Your task to perform on an android device: uninstall "Google News" Image 0: 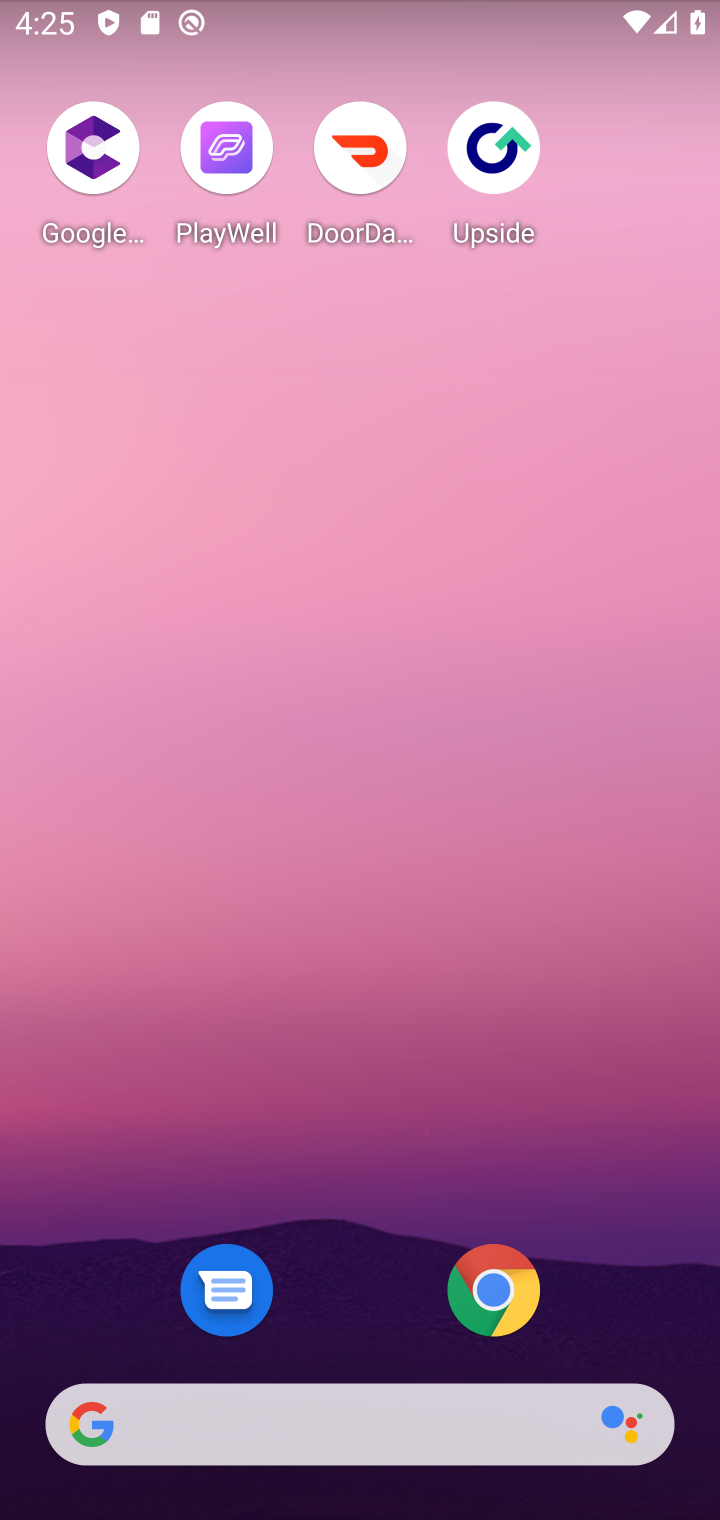
Step 0: drag from (353, 1226) to (302, 324)
Your task to perform on an android device: uninstall "Google News" Image 1: 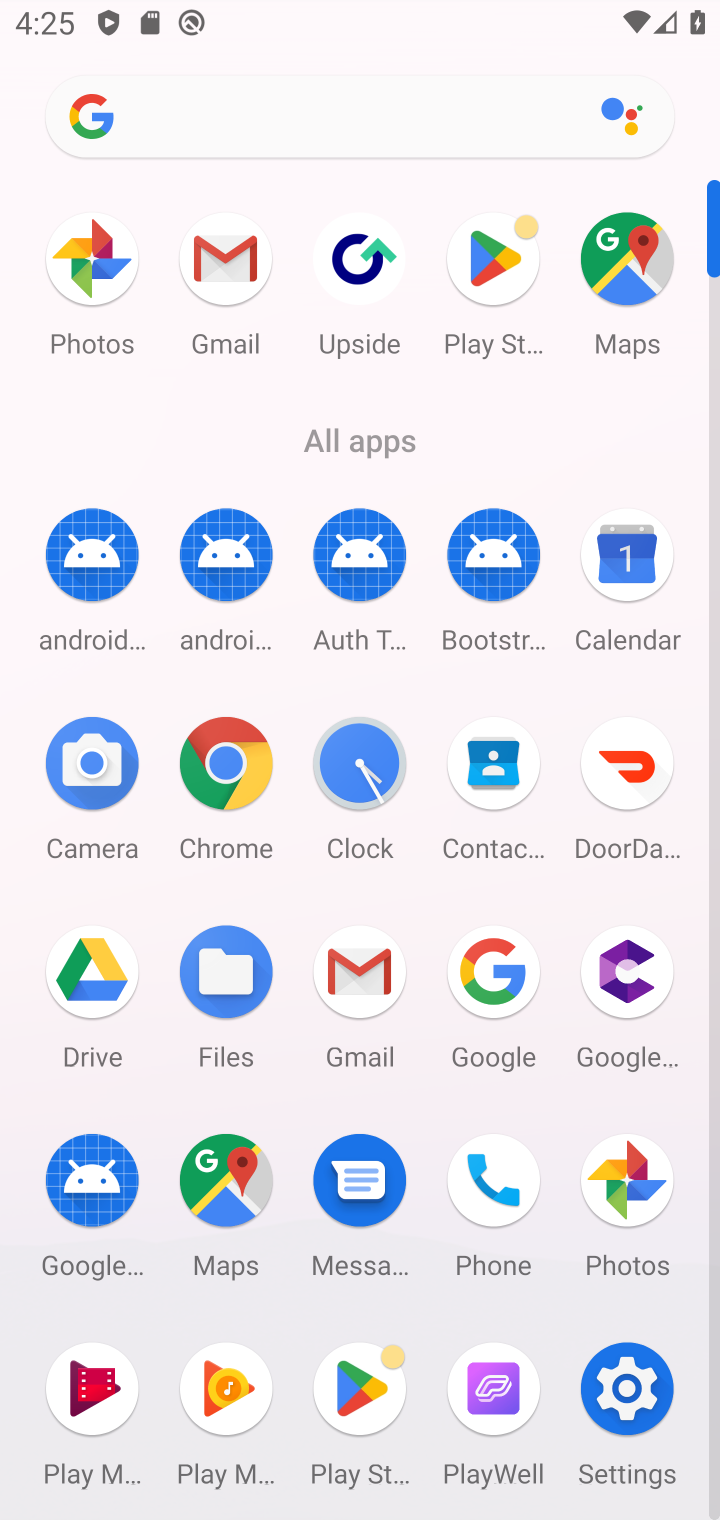
Step 1: click (255, 776)
Your task to perform on an android device: uninstall "Google News" Image 2: 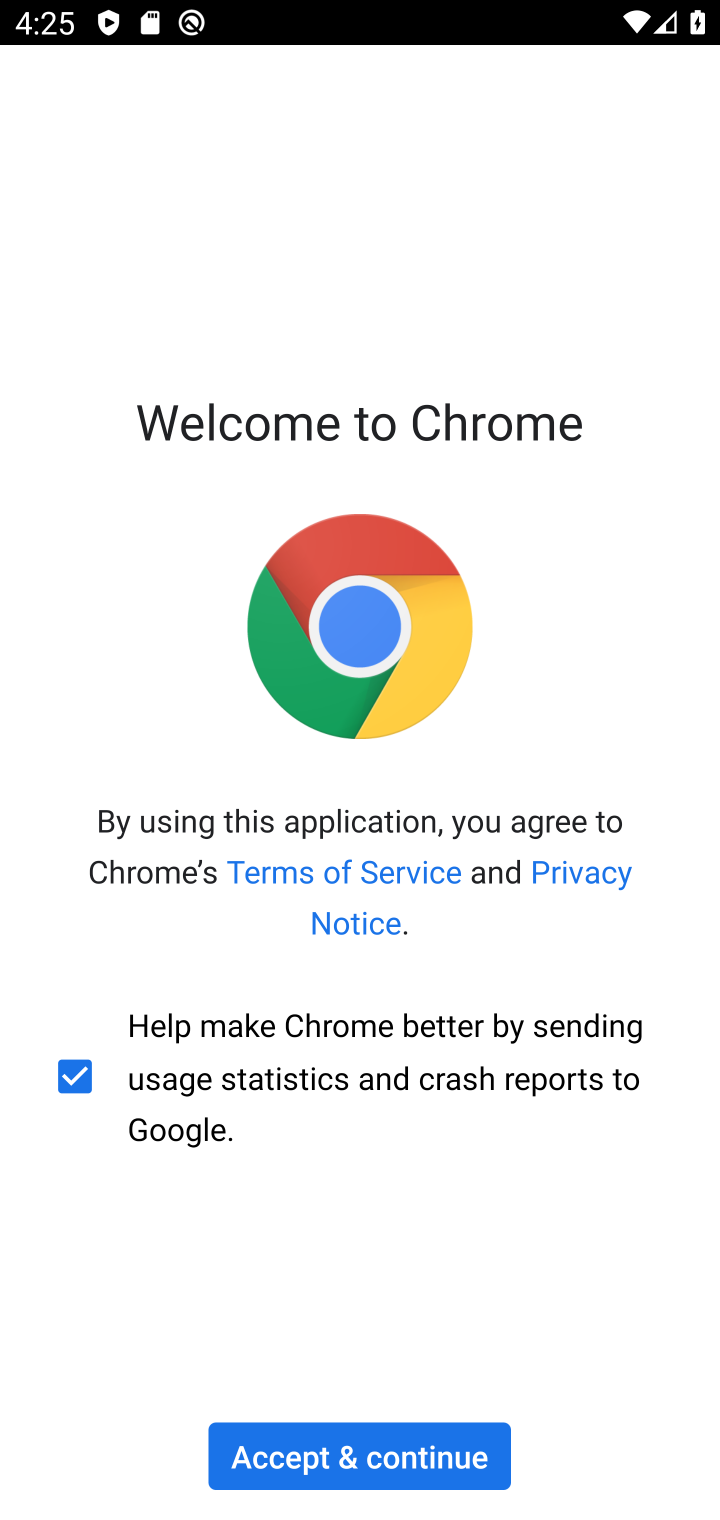
Step 2: press home button
Your task to perform on an android device: uninstall "Google News" Image 3: 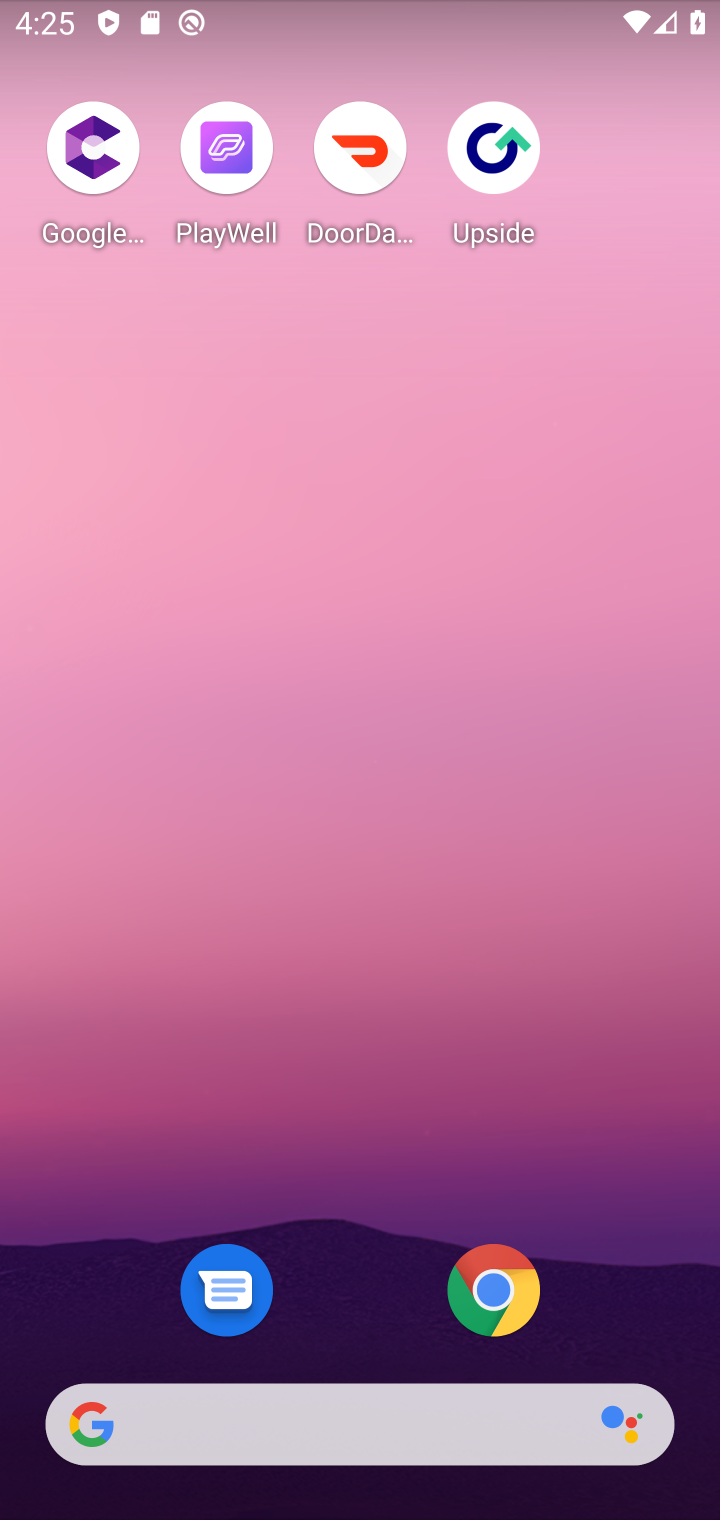
Step 3: drag from (371, 1404) to (472, 287)
Your task to perform on an android device: uninstall "Google News" Image 4: 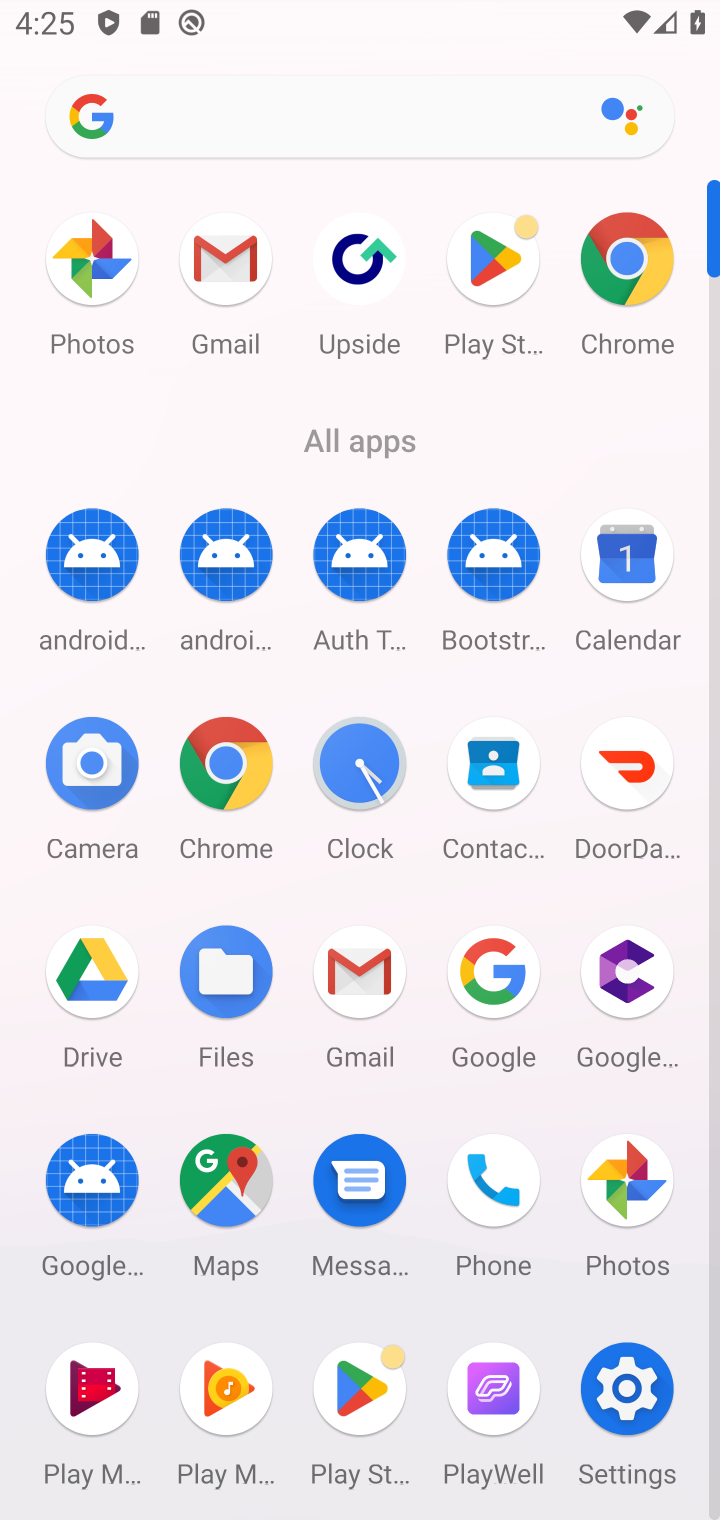
Step 4: click (484, 290)
Your task to perform on an android device: uninstall "Google News" Image 5: 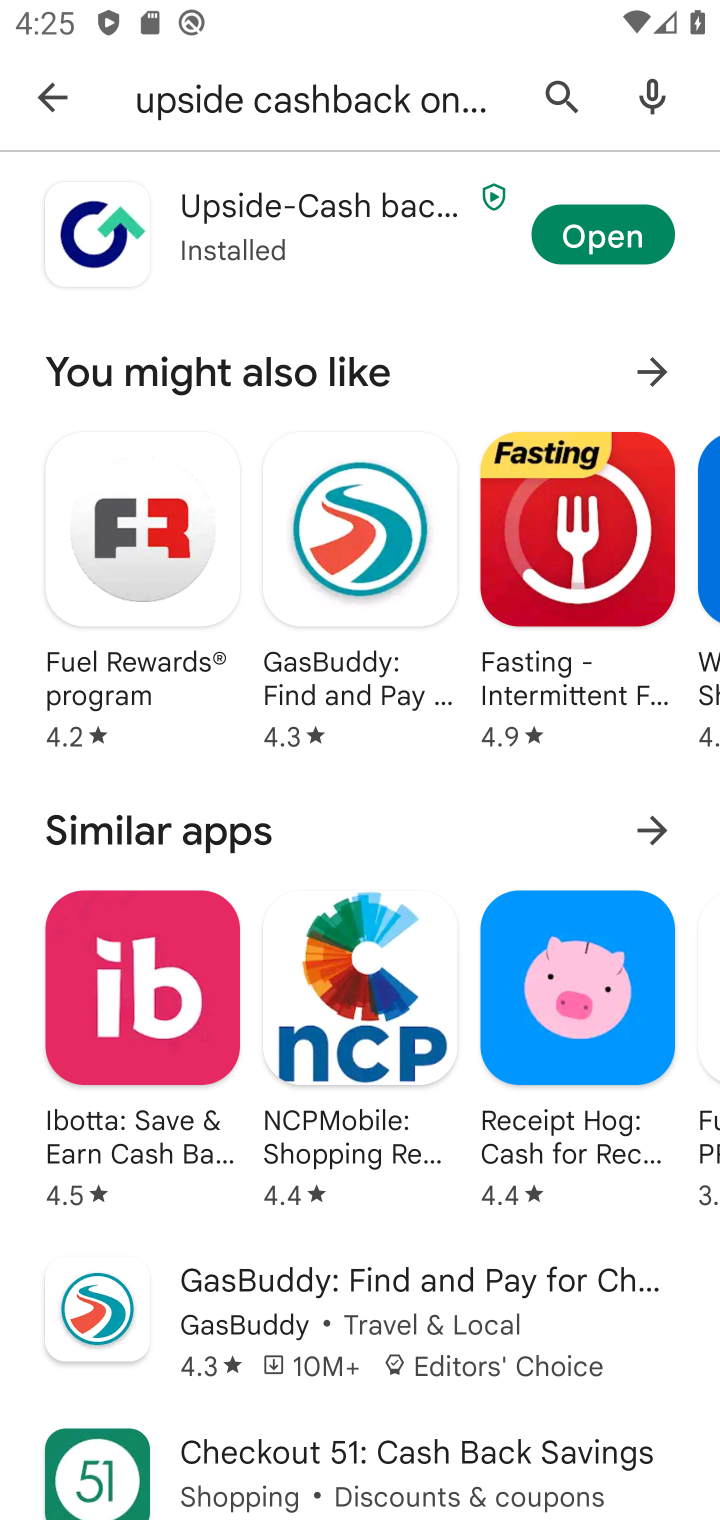
Step 5: click (553, 91)
Your task to perform on an android device: uninstall "Google News" Image 6: 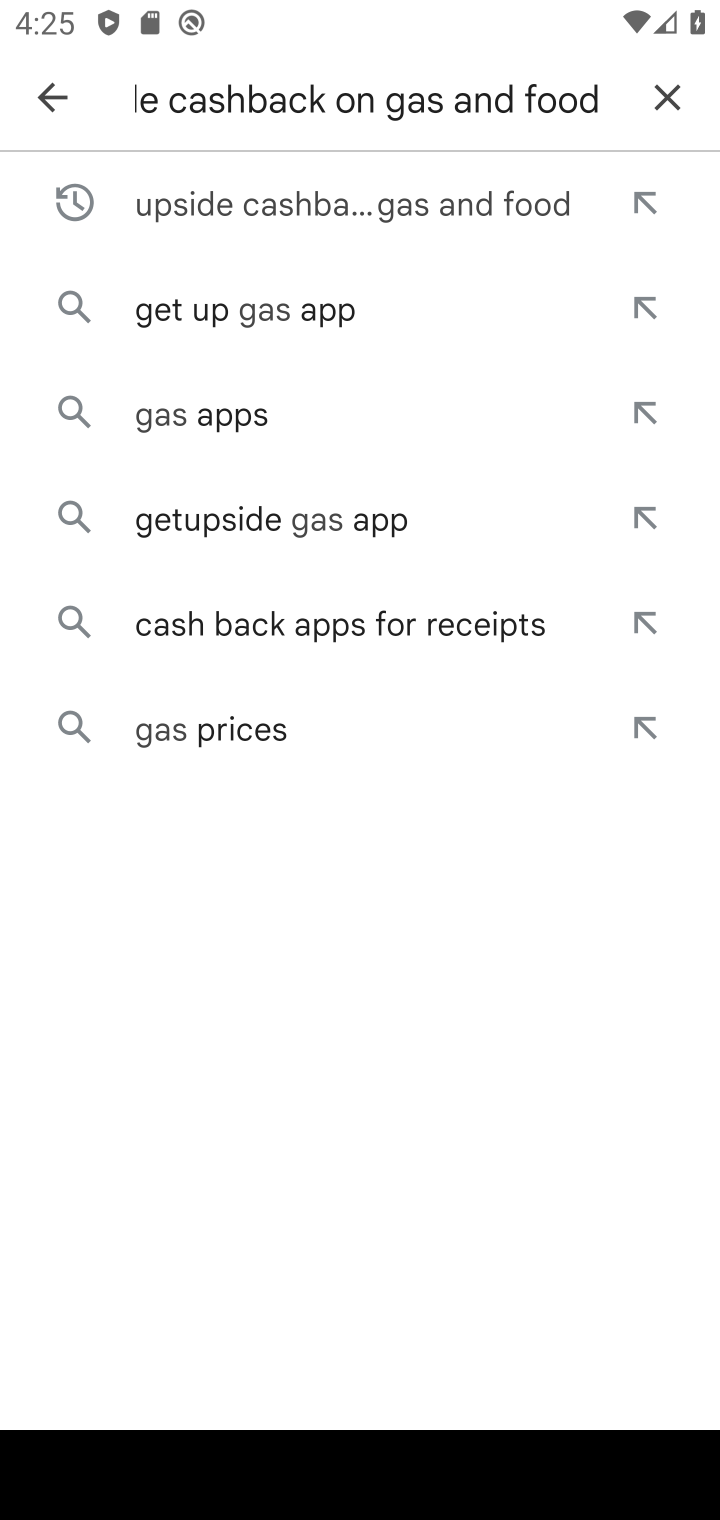
Step 6: click (659, 92)
Your task to perform on an android device: uninstall "Google News" Image 7: 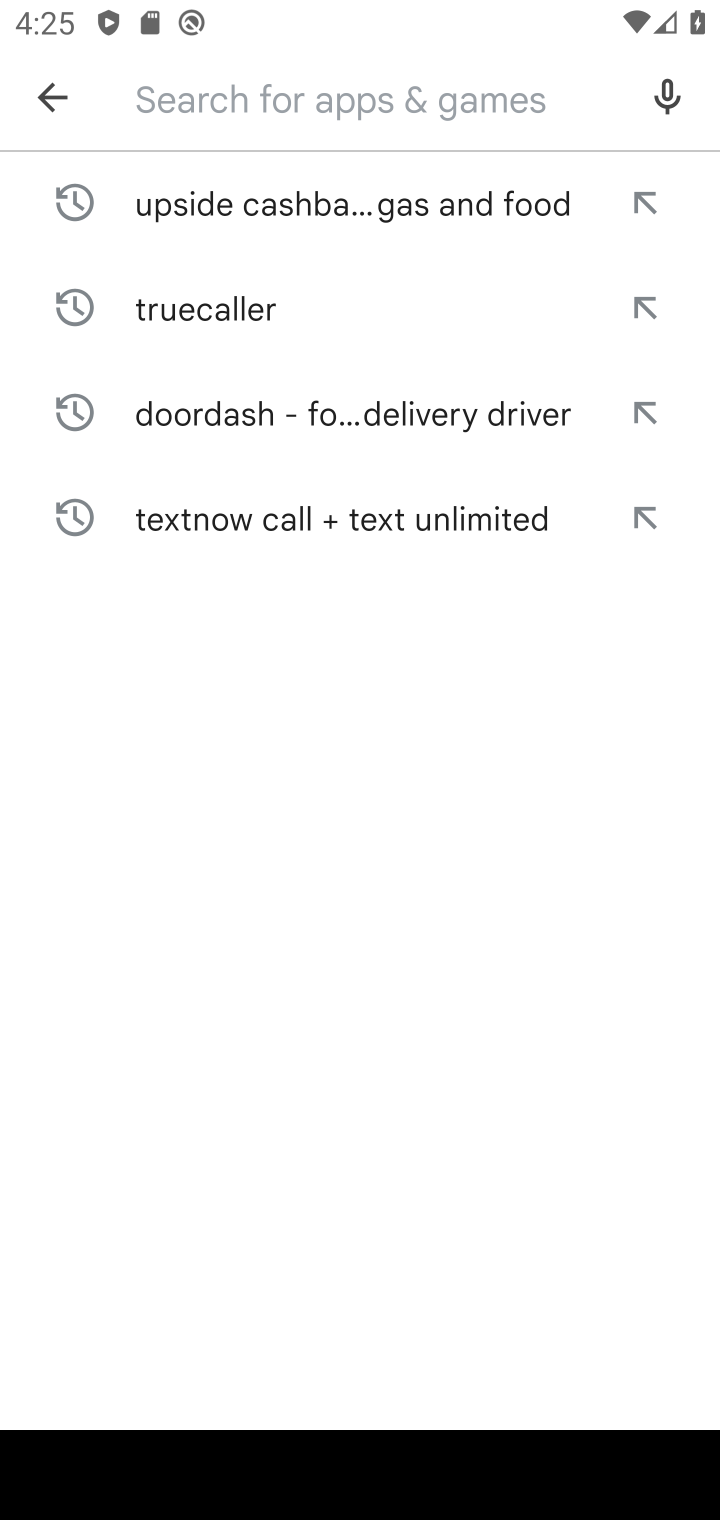
Step 7: type "google news"
Your task to perform on an android device: uninstall "Google News" Image 8: 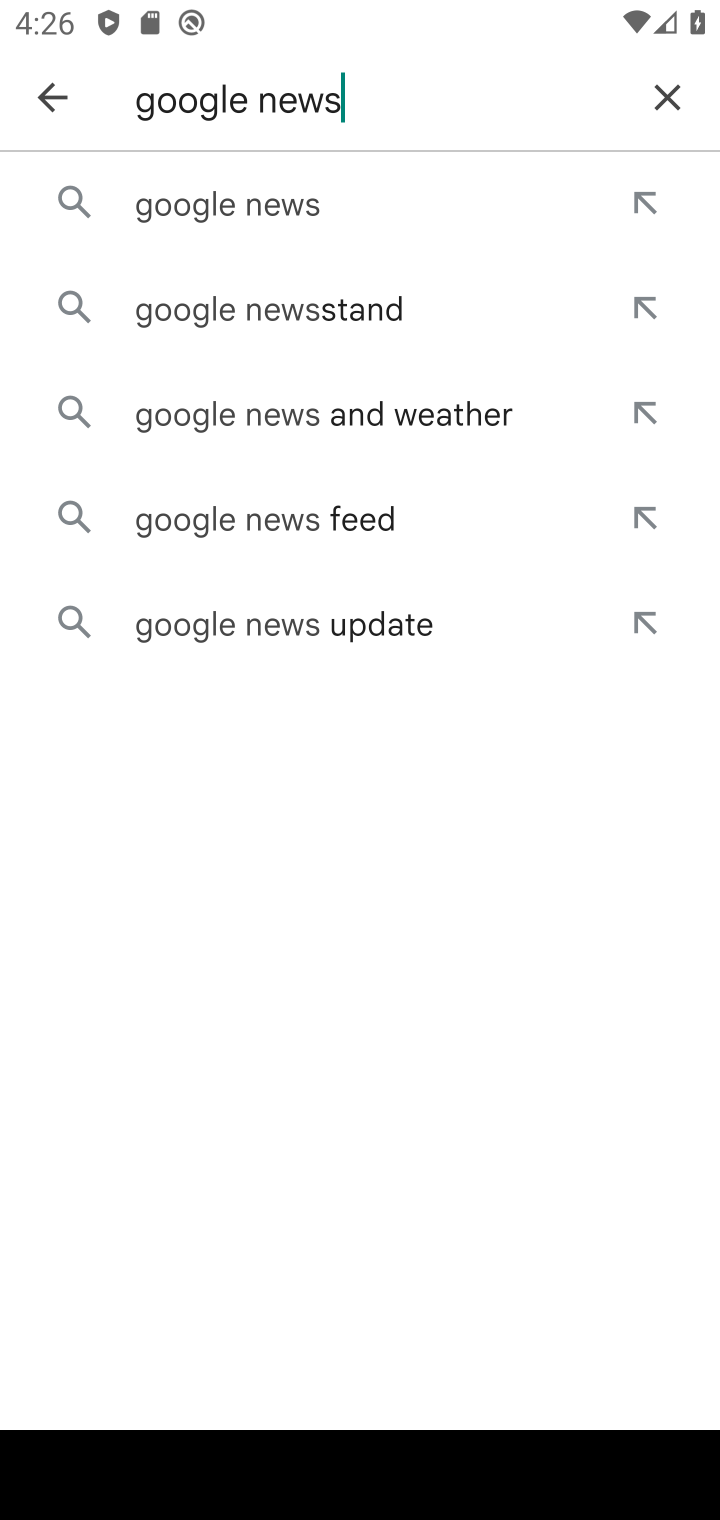
Step 8: click (271, 206)
Your task to perform on an android device: uninstall "Google News" Image 9: 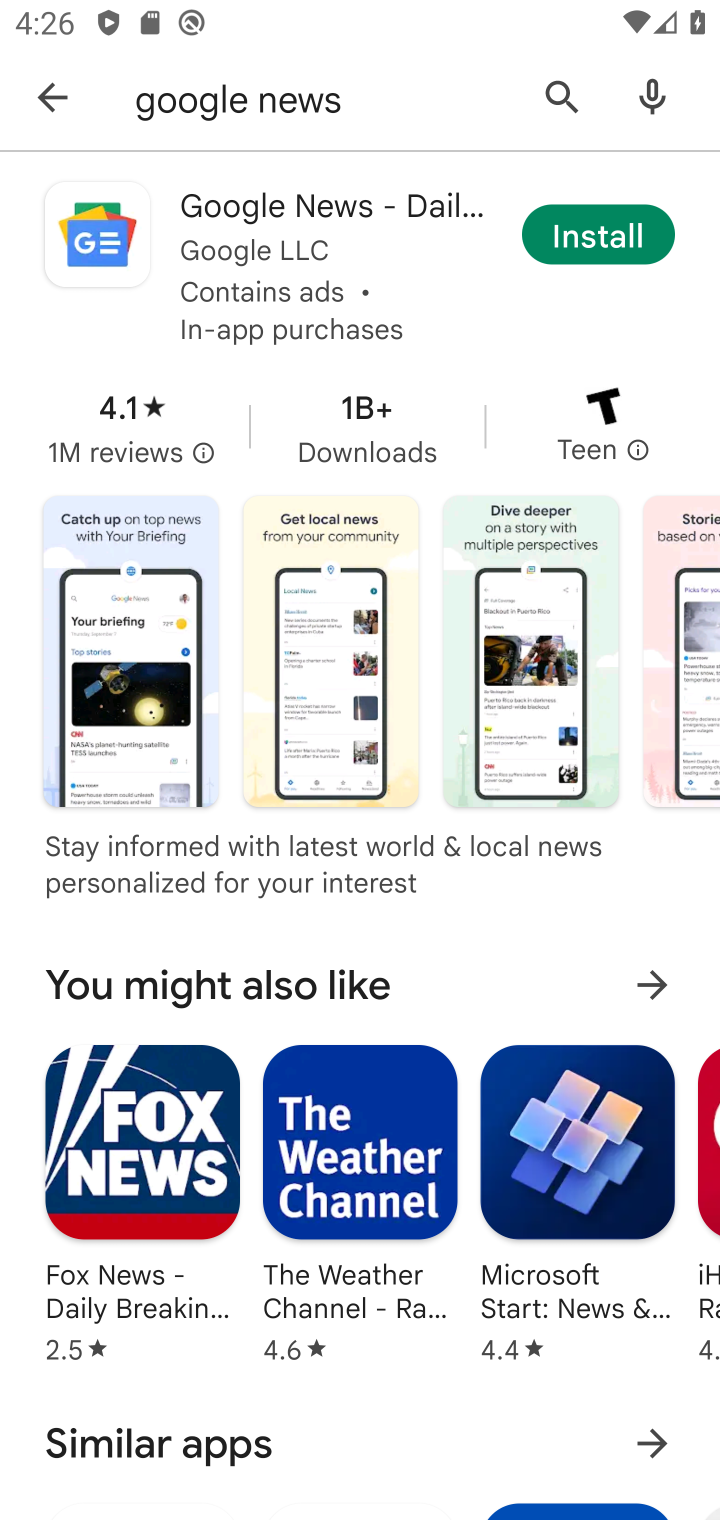
Step 9: task complete